Your task to perform on an android device: Do I have any events today? Image 0: 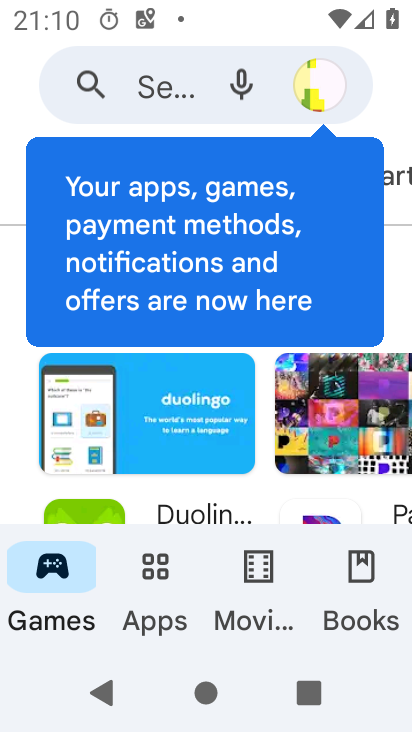
Step 0: press home button
Your task to perform on an android device: Do I have any events today? Image 1: 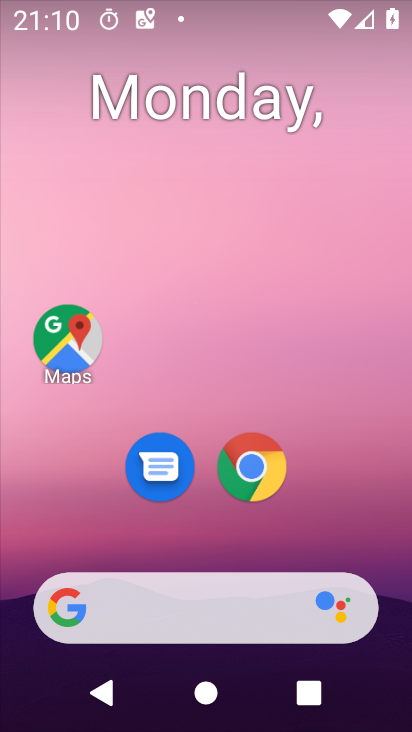
Step 1: drag from (210, 341) to (258, 41)
Your task to perform on an android device: Do I have any events today? Image 2: 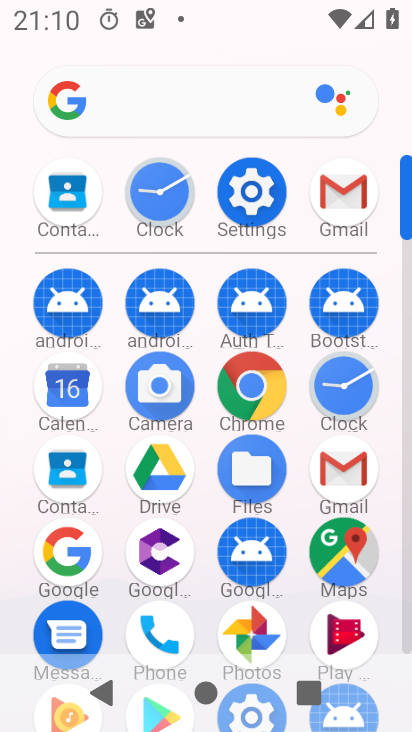
Step 2: click (74, 404)
Your task to perform on an android device: Do I have any events today? Image 3: 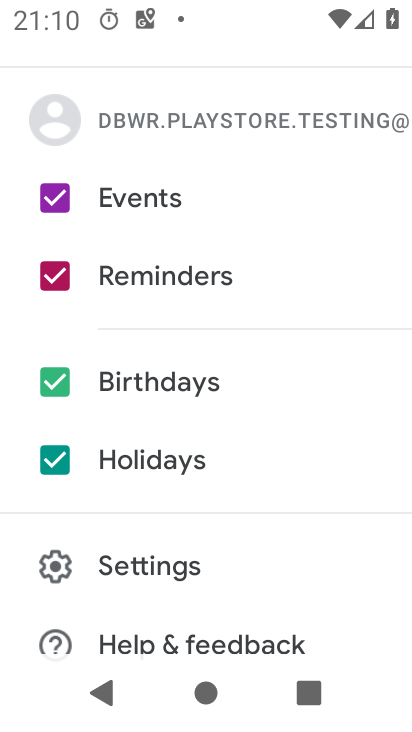
Step 3: press back button
Your task to perform on an android device: Do I have any events today? Image 4: 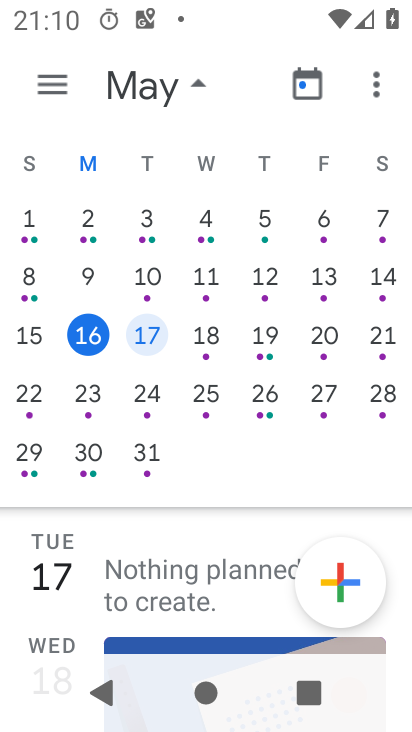
Step 4: click (140, 342)
Your task to perform on an android device: Do I have any events today? Image 5: 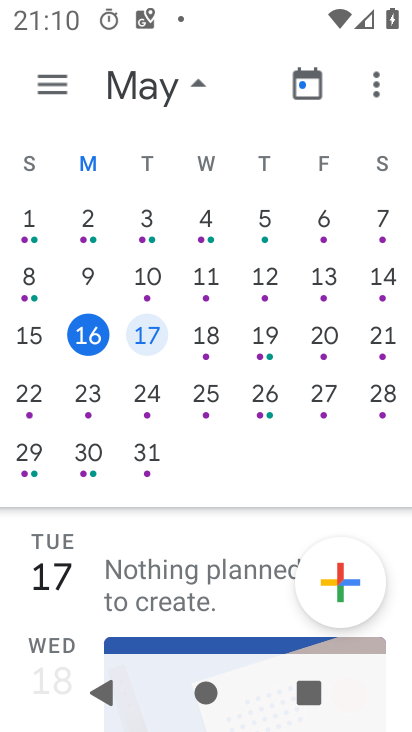
Step 5: click (140, 342)
Your task to perform on an android device: Do I have any events today? Image 6: 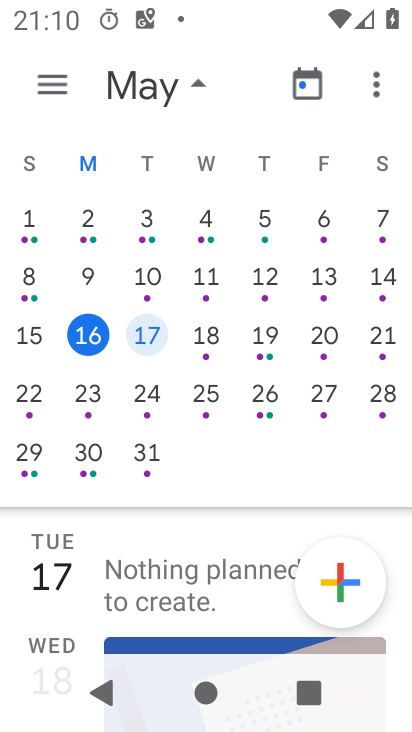
Step 6: click (140, 342)
Your task to perform on an android device: Do I have any events today? Image 7: 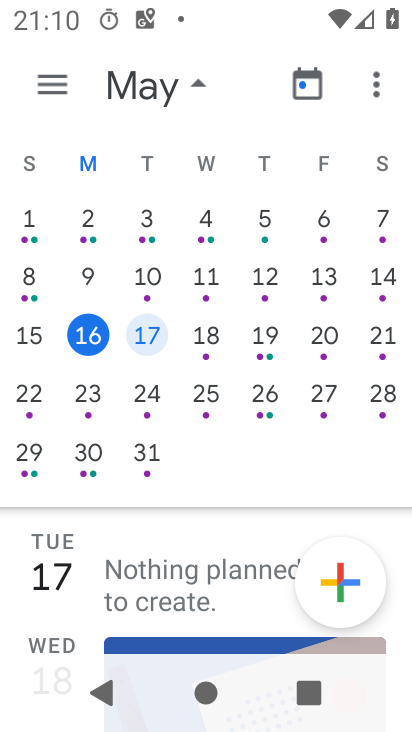
Step 7: drag from (167, 471) to (221, 135)
Your task to perform on an android device: Do I have any events today? Image 8: 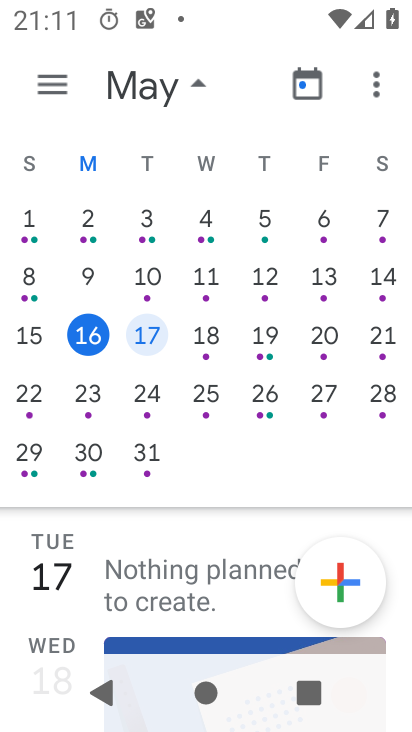
Step 8: click (201, 84)
Your task to perform on an android device: Do I have any events today? Image 9: 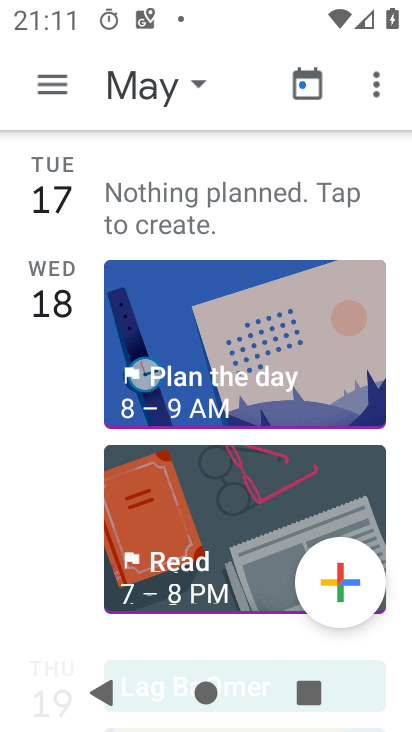
Step 9: click (51, 197)
Your task to perform on an android device: Do I have any events today? Image 10: 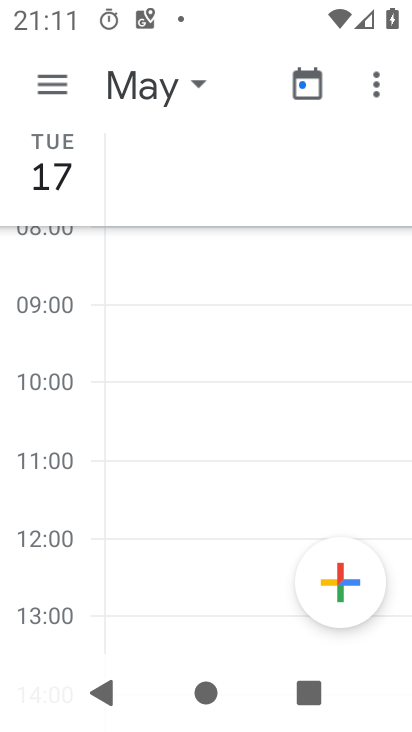
Step 10: task complete